Your task to perform on an android device: install app "Google Calendar" Image 0: 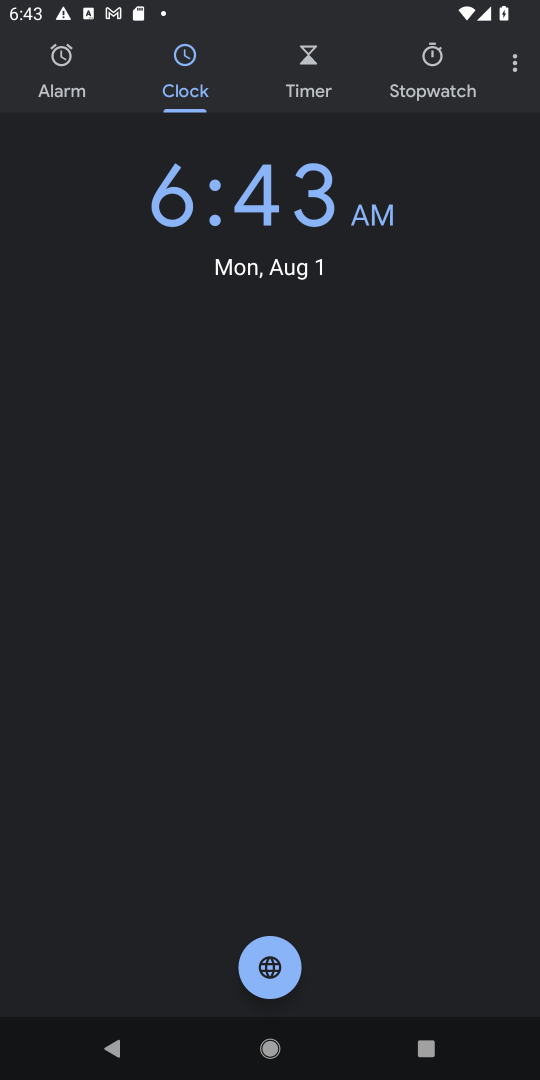
Step 0: press home button
Your task to perform on an android device: install app "Google Calendar" Image 1: 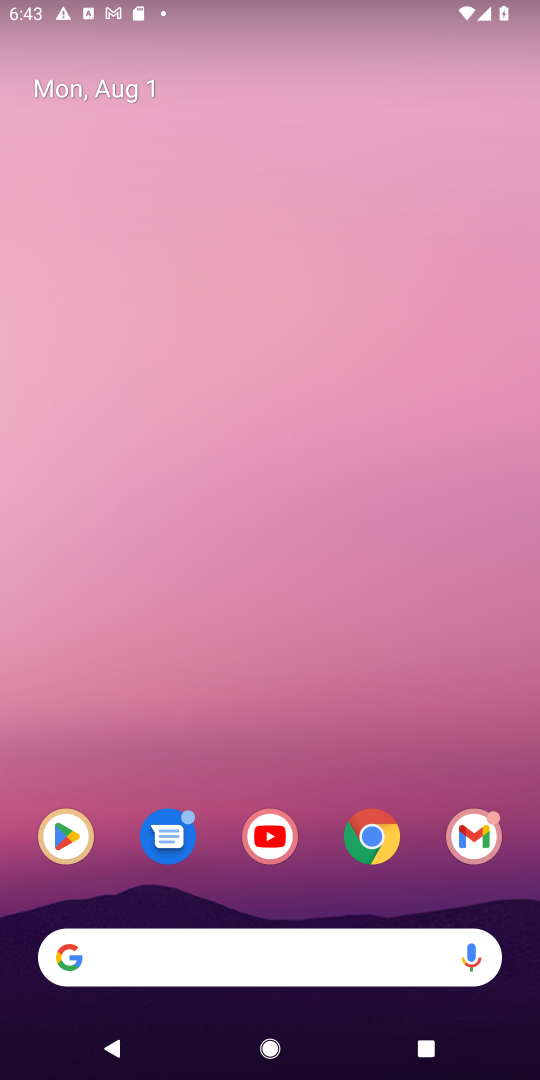
Step 1: click (72, 839)
Your task to perform on an android device: install app "Google Calendar" Image 2: 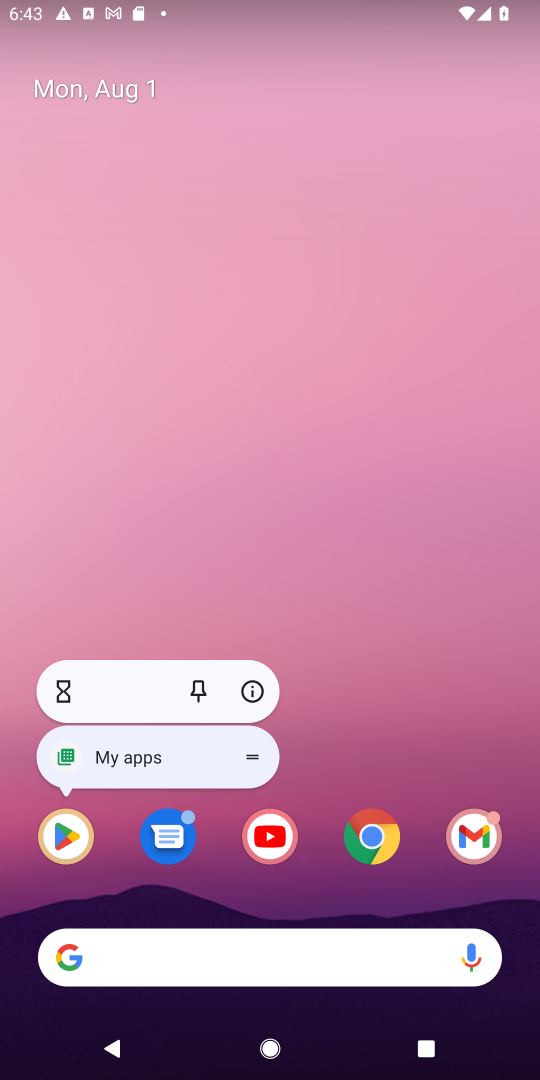
Step 2: click (61, 840)
Your task to perform on an android device: install app "Google Calendar" Image 3: 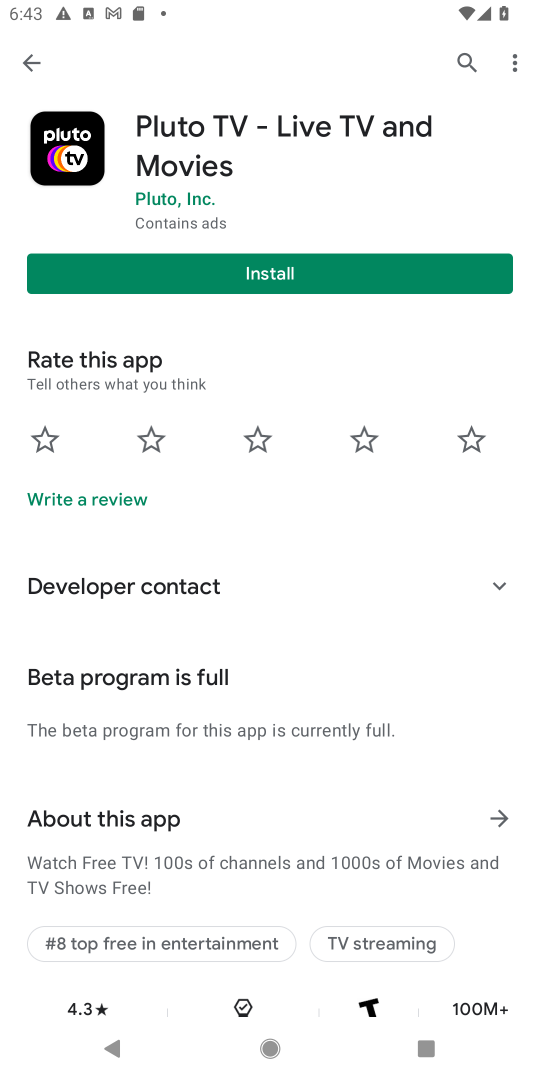
Step 3: click (461, 51)
Your task to perform on an android device: install app "Google Calendar" Image 4: 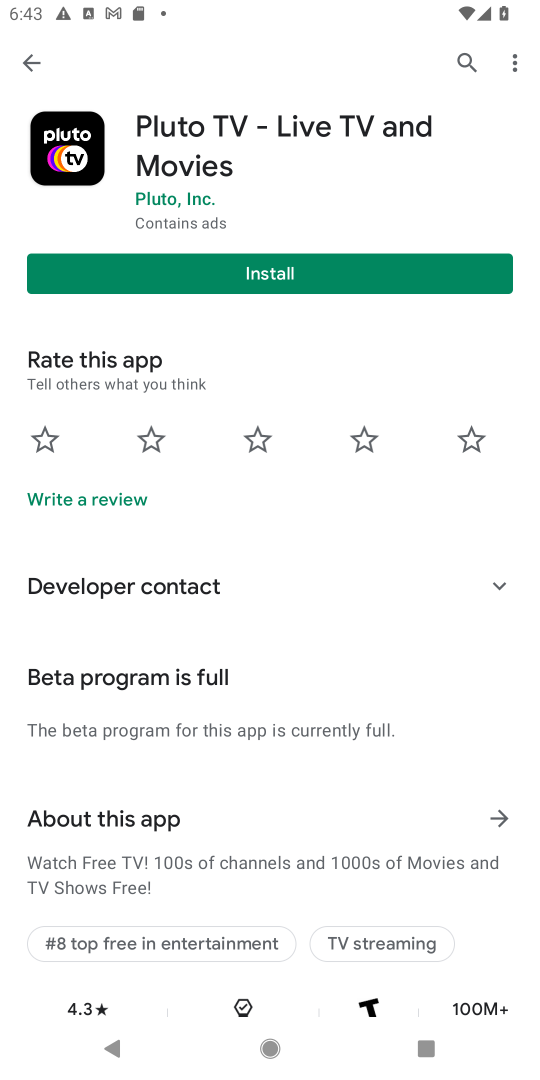
Step 4: click (455, 55)
Your task to perform on an android device: install app "Google Calendar" Image 5: 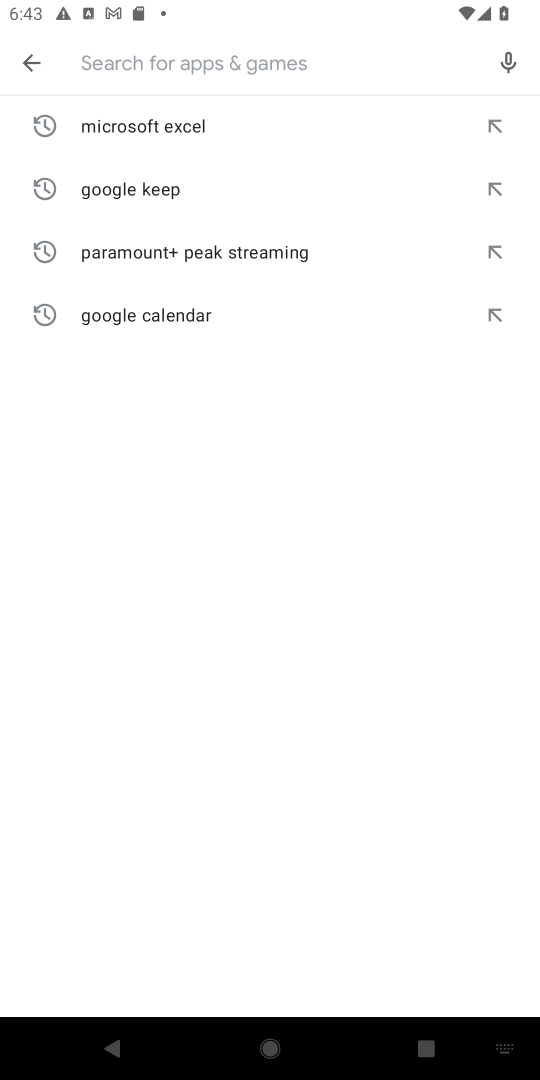
Step 5: type "Google Calendar"
Your task to perform on an android device: install app "Google Calendar" Image 6: 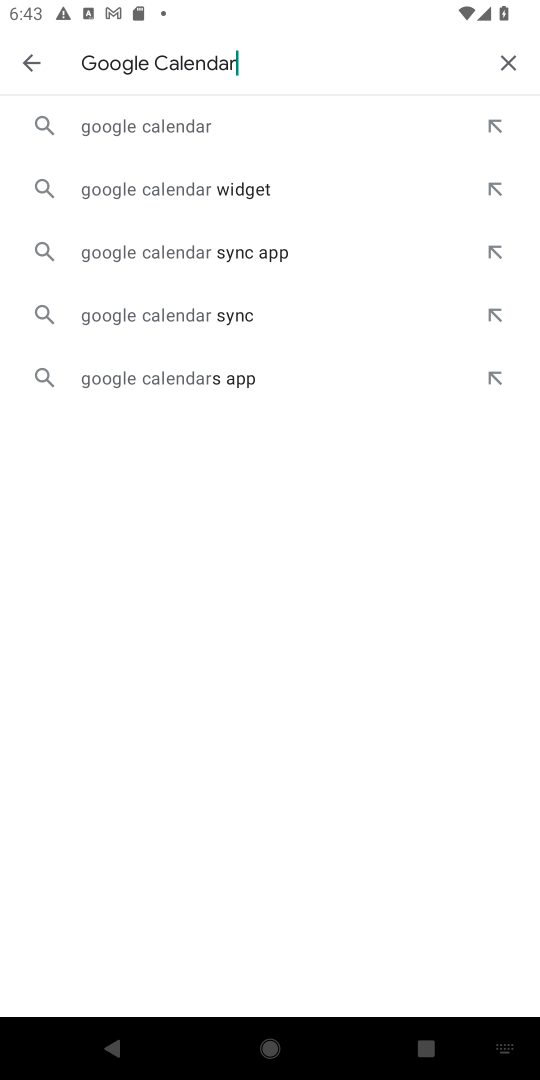
Step 6: click (117, 125)
Your task to perform on an android device: install app "Google Calendar" Image 7: 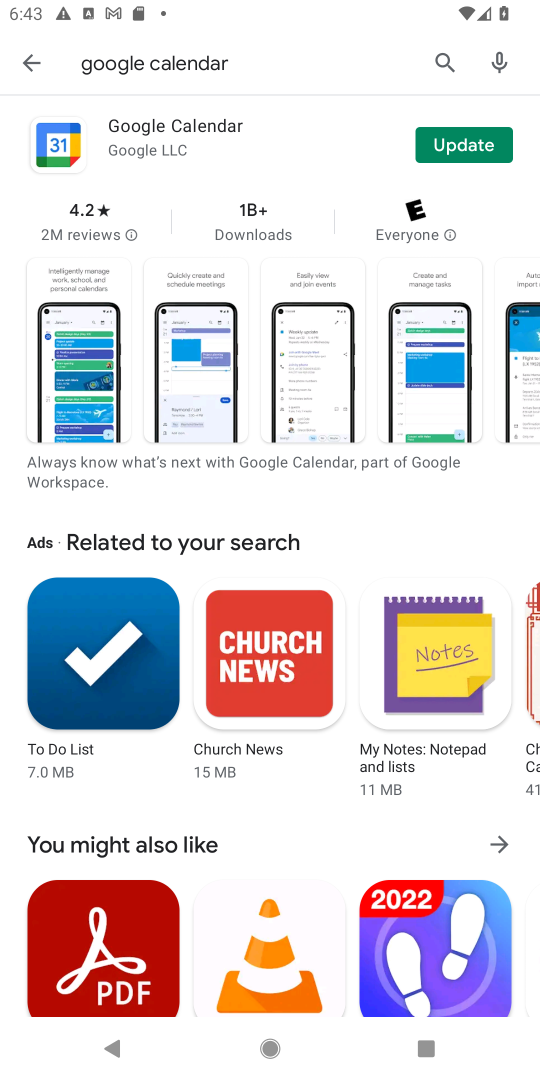
Step 7: click (123, 132)
Your task to perform on an android device: install app "Google Calendar" Image 8: 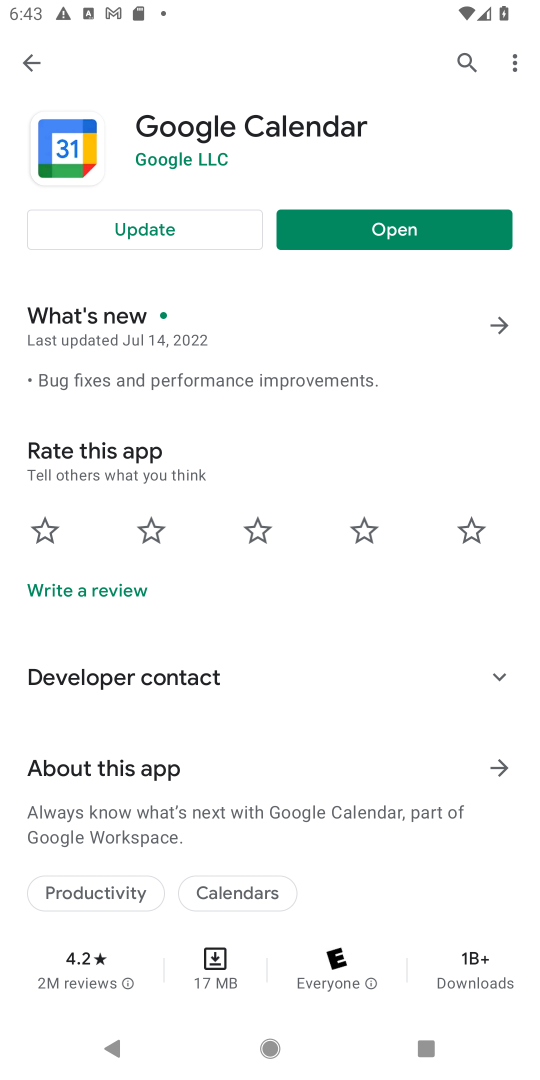
Step 8: task complete